Your task to perform on an android device: turn on sleep mode Image 0: 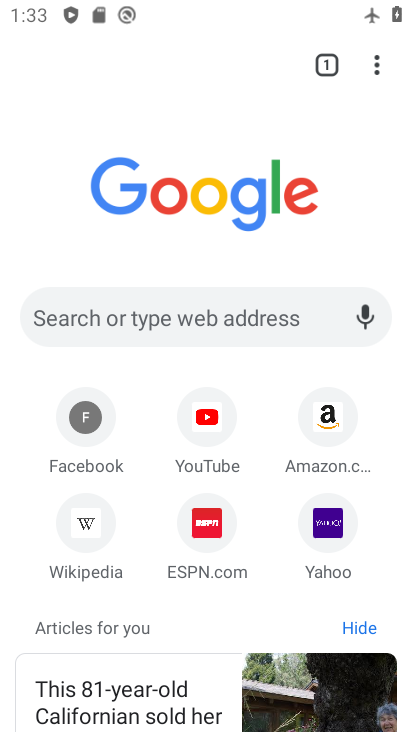
Step 0: press home button
Your task to perform on an android device: turn on sleep mode Image 1: 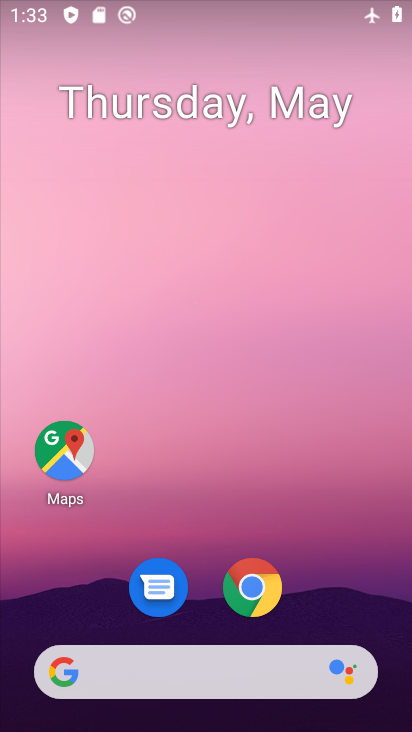
Step 1: drag from (210, 492) to (170, 22)
Your task to perform on an android device: turn on sleep mode Image 2: 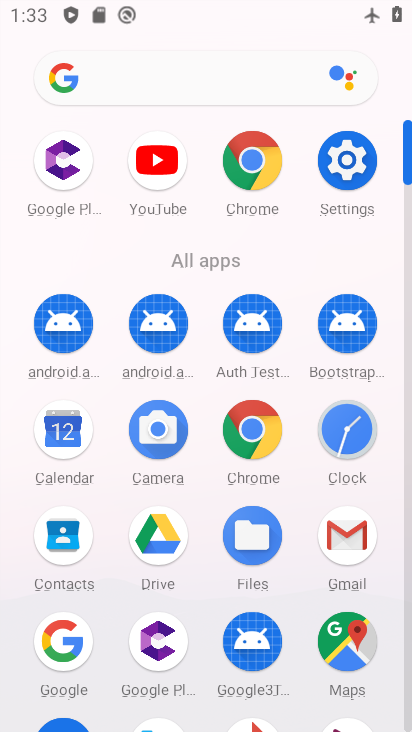
Step 2: click (358, 164)
Your task to perform on an android device: turn on sleep mode Image 3: 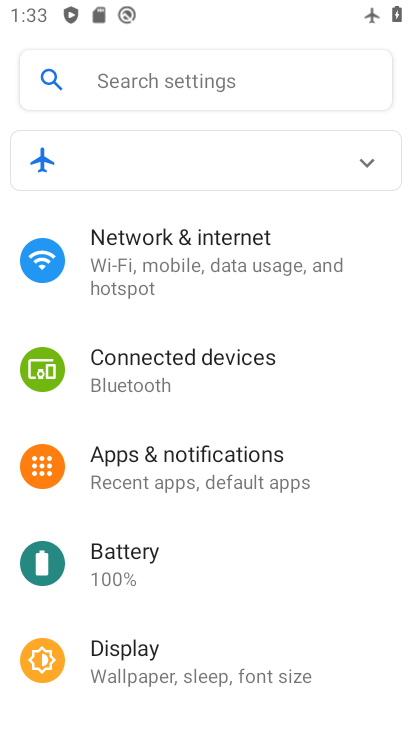
Step 3: click (115, 669)
Your task to perform on an android device: turn on sleep mode Image 4: 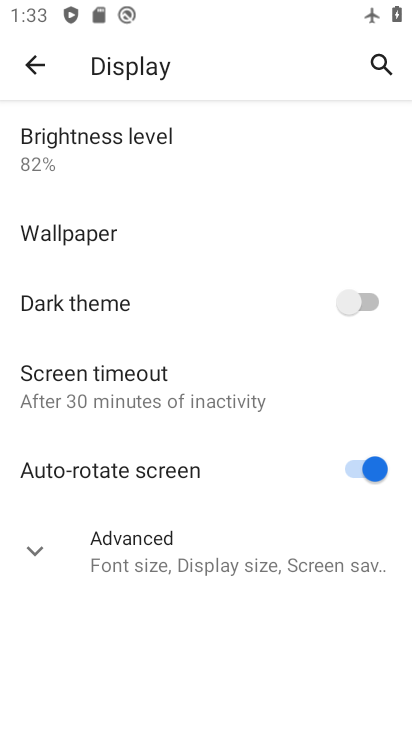
Step 4: task complete